Your task to perform on an android device: Open Google Chrome Image 0: 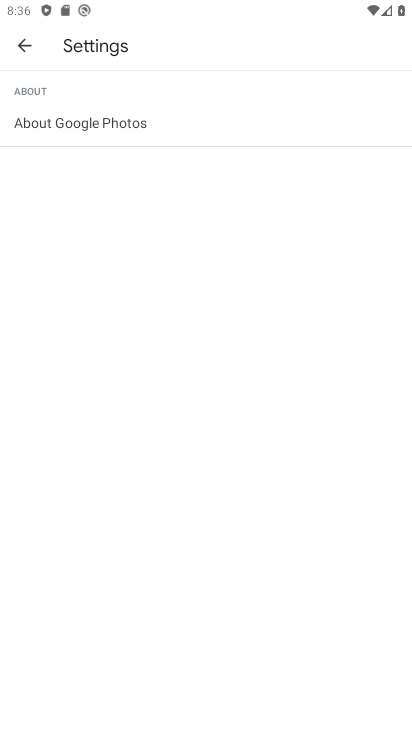
Step 0: press home button
Your task to perform on an android device: Open Google Chrome Image 1: 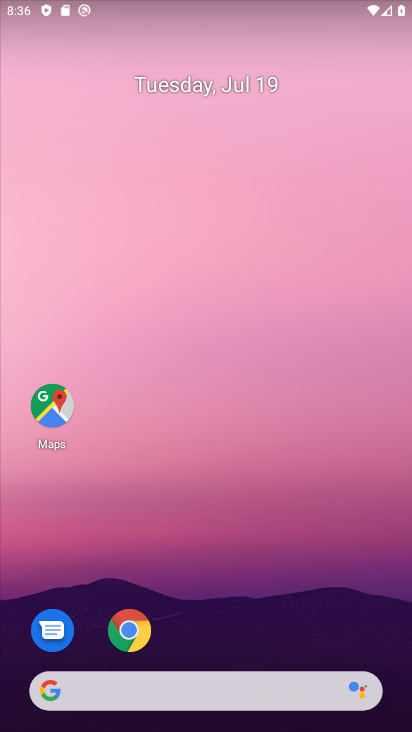
Step 1: click (129, 632)
Your task to perform on an android device: Open Google Chrome Image 2: 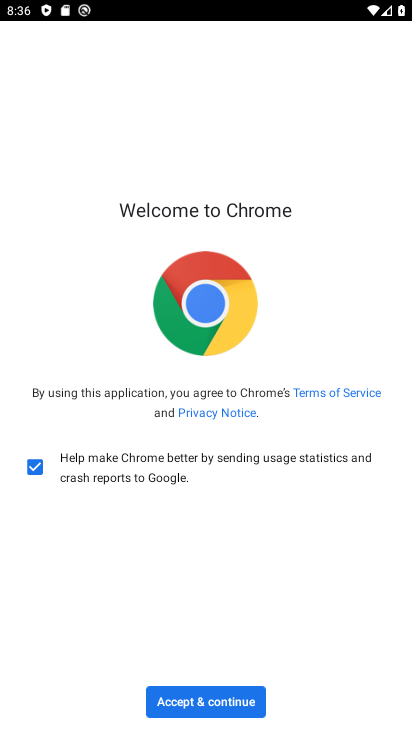
Step 2: click (193, 703)
Your task to perform on an android device: Open Google Chrome Image 3: 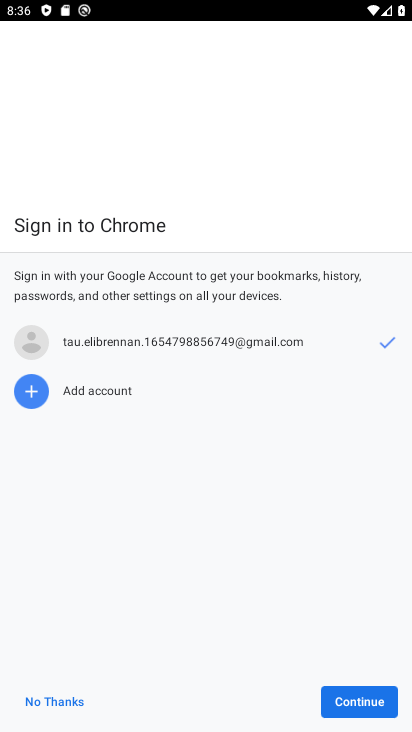
Step 3: click (357, 699)
Your task to perform on an android device: Open Google Chrome Image 4: 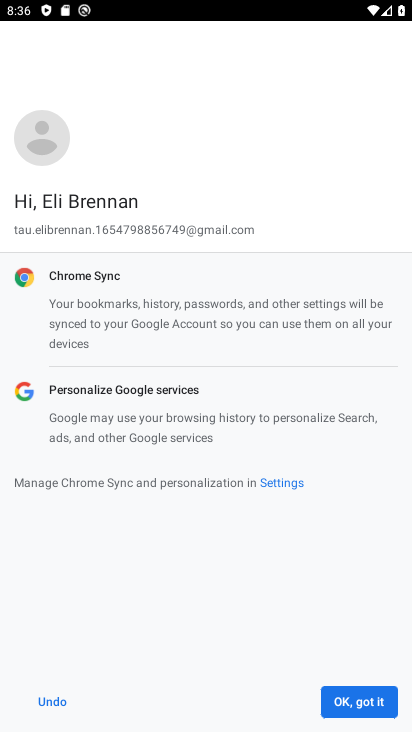
Step 4: click (357, 699)
Your task to perform on an android device: Open Google Chrome Image 5: 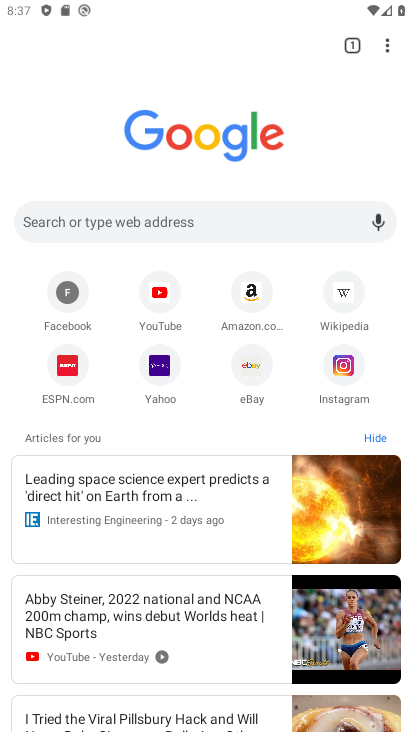
Step 5: press home button
Your task to perform on an android device: Open Google Chrome Image 6: 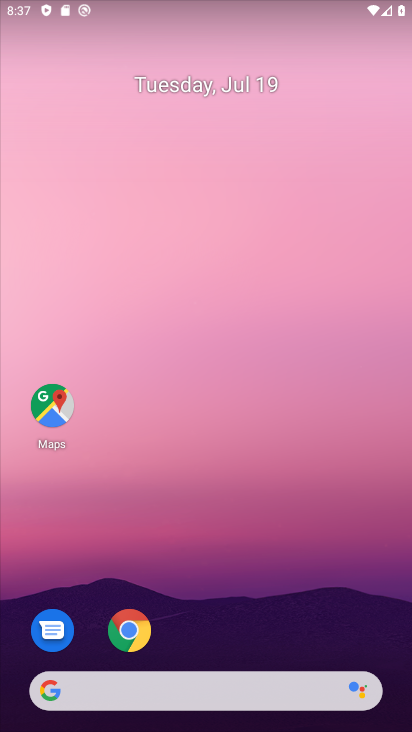
Step 6: click (126, 627)
Your task to perform on an android device: Open Google Chrome Image 7: 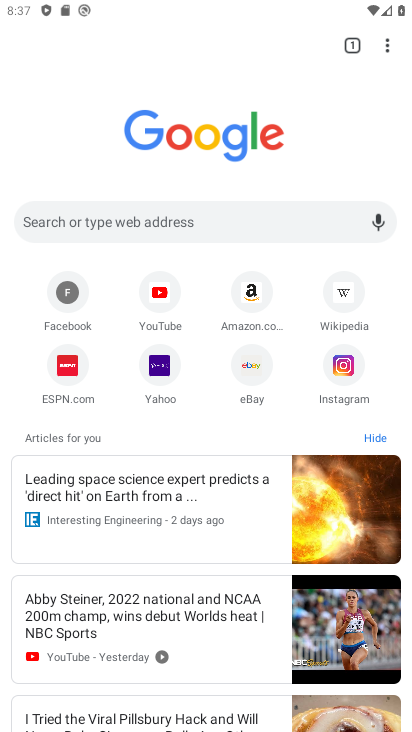
Step 7: task complete